Your task to perform on an android device: see creations saved in the google photos Image 0: 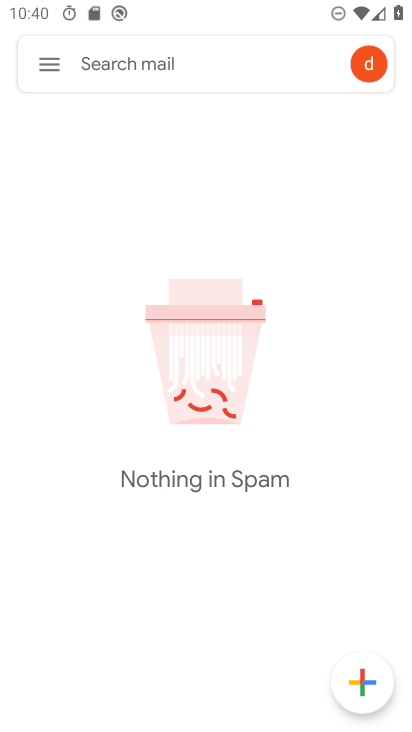
Step 0: press home button
Your task to perform on an android device: see creations saved in the google photos Image 1: 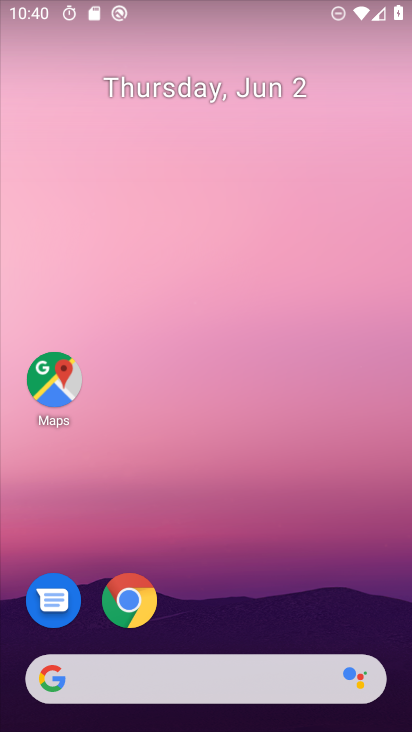
Step 1: drag from (210, 606) to (207, 0)
Your task to perform on an android device: see creations saved in the google photos Image 2: 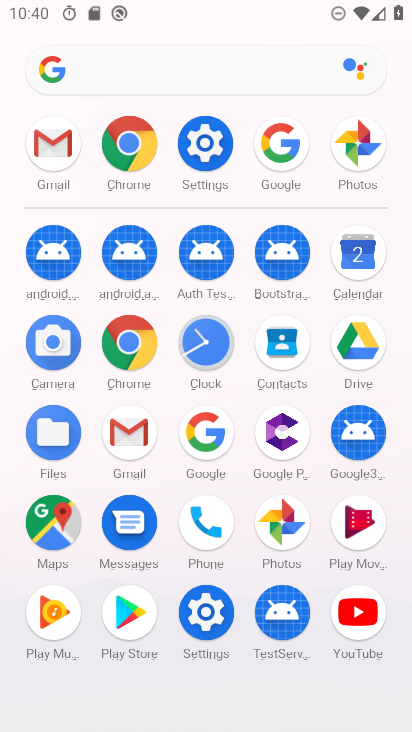
Step 2: click (280, 525)
Your task to perform on an android device: see creations saved in the google photos Image 3: 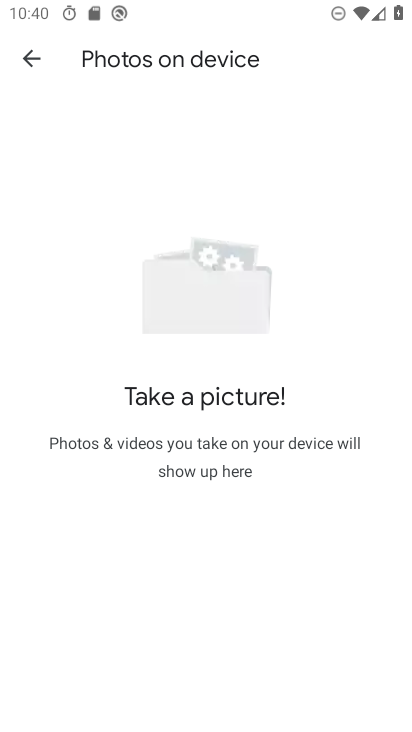
Step 3: press back button
Your task to perform on an android device: see creations saved in the google photos Image 4: 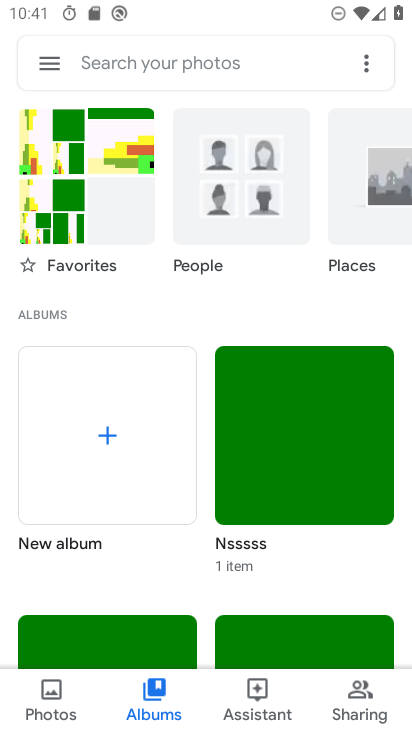
Step 4: click (224, 63)
Your task to perform on an android device: see creations saved in the google photos Image 5: 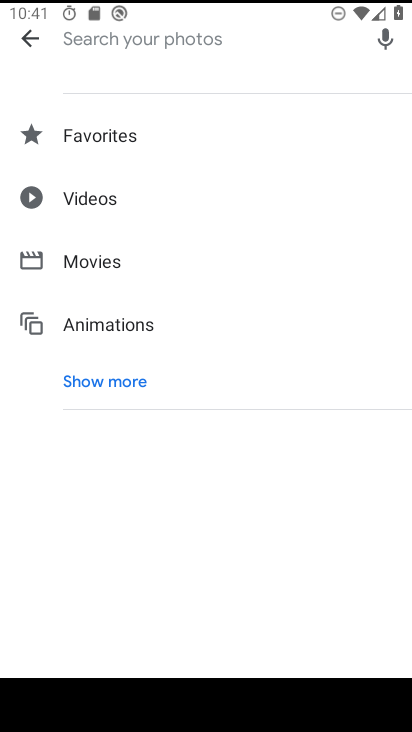
Step 5: click (122, 381)
Your task to perform on an android device: see creations saved in the google photos Image 6: 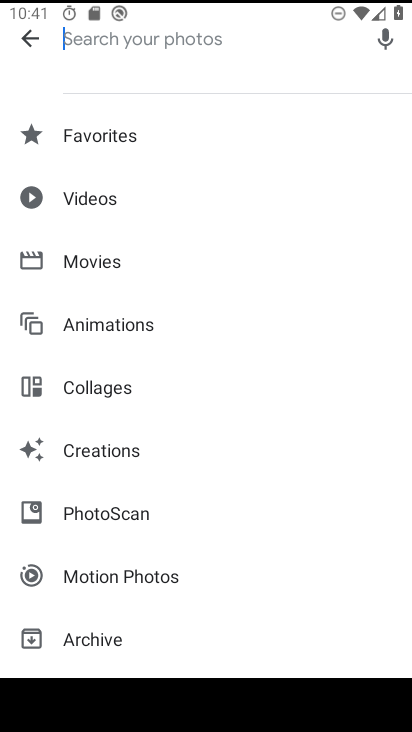
Step 6: click (91, 449)
Your task to perform on an android device: see creations saved in the google photos Image 7: 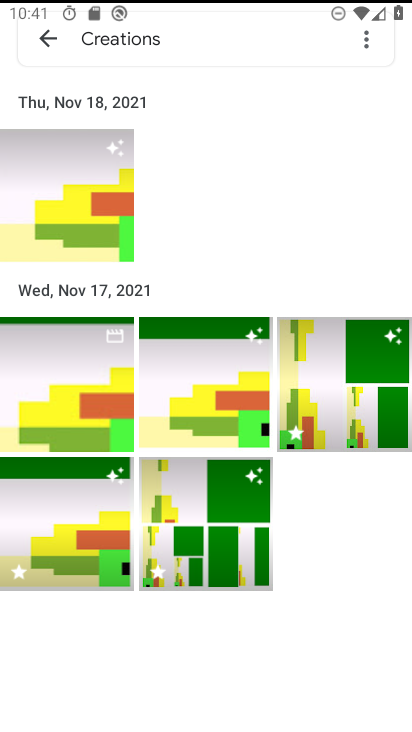
Step 7: task complete